Your task to perform on an android device: change keyboard looks Image 0: 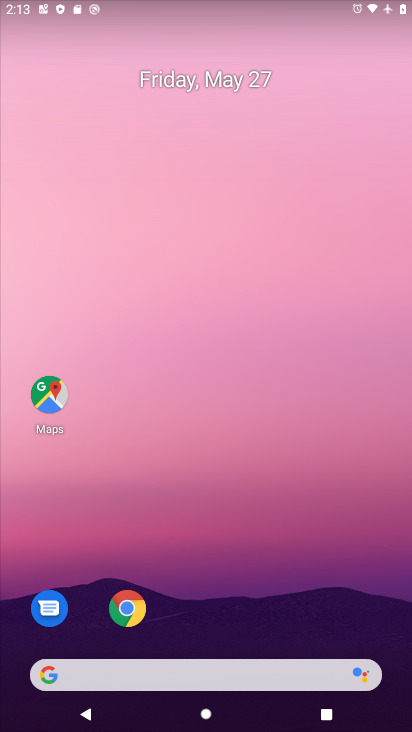
Step 0: press home button
Your task to perform on an android device: change keyboard looks Image 1: 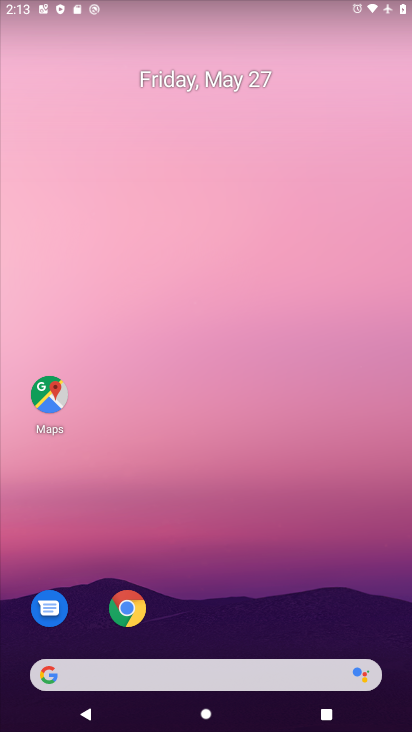
Step 1: drag from (161, 671) to (315, 103)
Your task to perform on an android device: change keyboard looks Image 2: 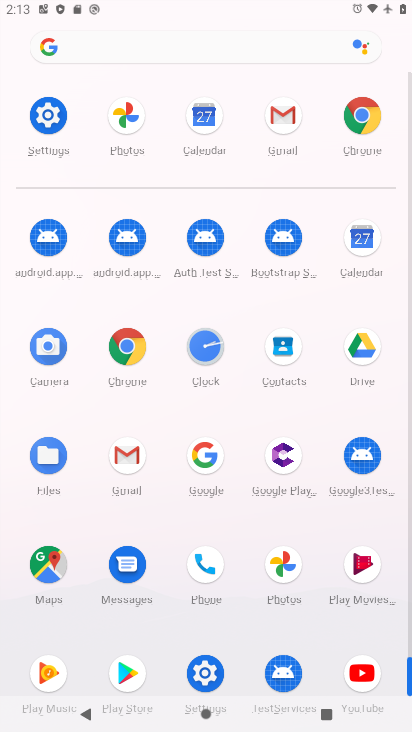
Step 2: click (44, 120)
Your task to perform on an android device: change keyboard looks Image 3: 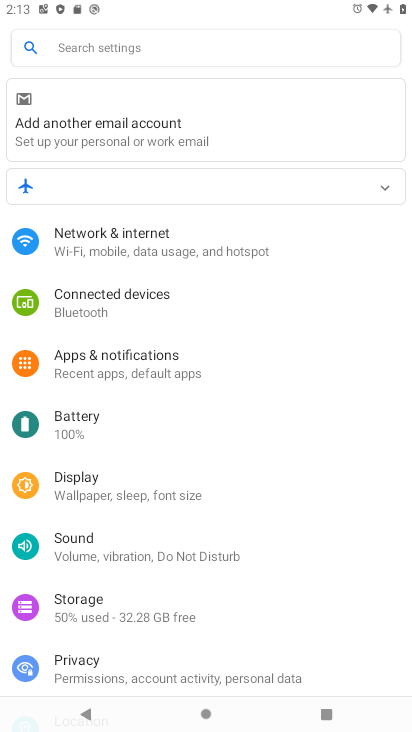
Step 3: drag from (307, 629) to (411, 70)
Your task to perform on an android device: change keyboard looks Image 4: 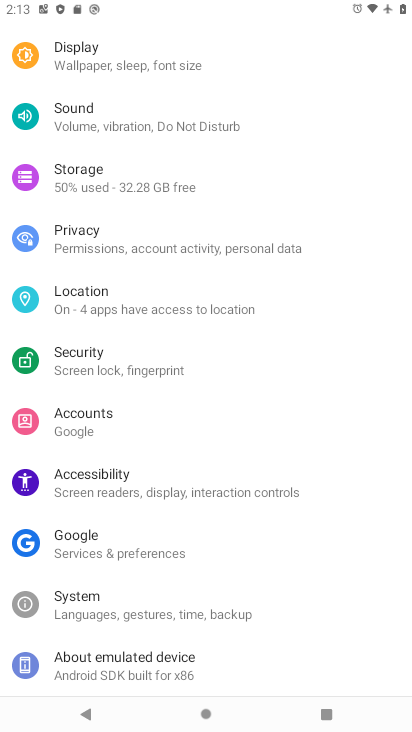
Step 4: click (131, 605)
Your task to perform on an android device: change keyboard looks Image 5: 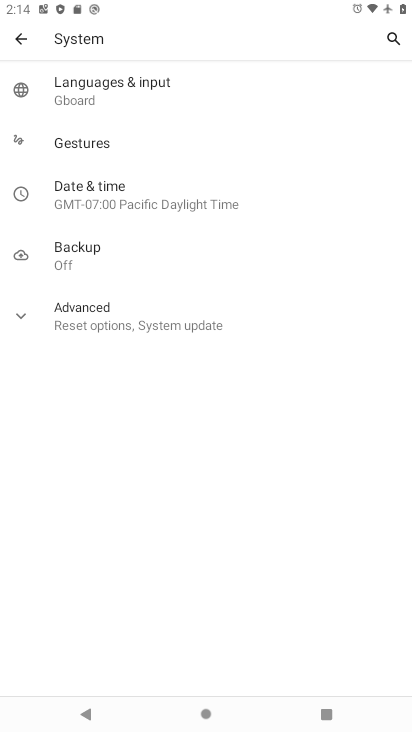
Step 5: click (105, 88)
Your task to perform on an android device: change keyboard looks Image 6: 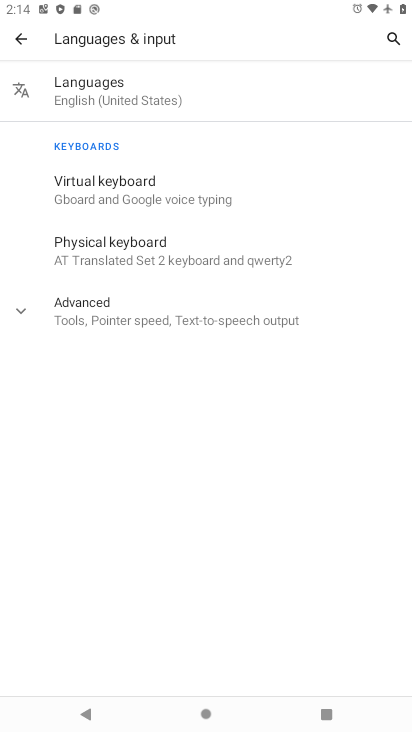
Step 6: click (159, 193)
Your task to perform on an android device: change keyboard looks Image 7: 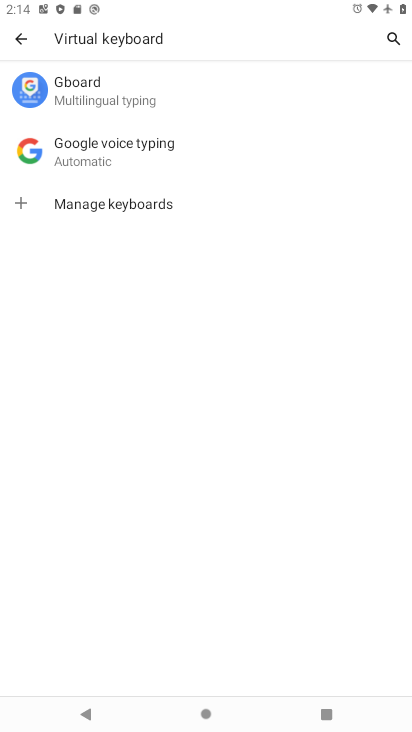
Step 7: click (96, 90)
Your task to perform on an android device: change keyboard looks Image 8: 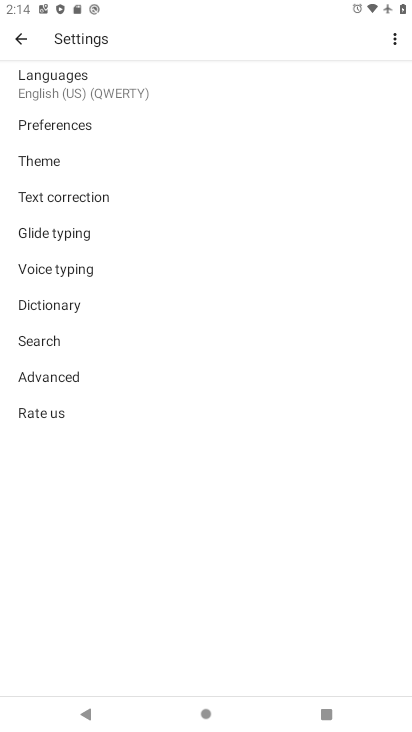
Step 8: click (58, 174)
Your task to perform on an android device: change keyboard looks Image 9: 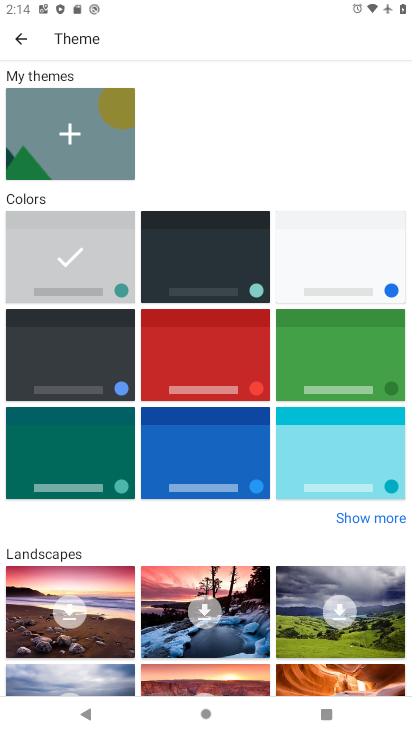
Step 9: click (78, 449)
Your task to perform on an android device: change keyboard looks Image 10: 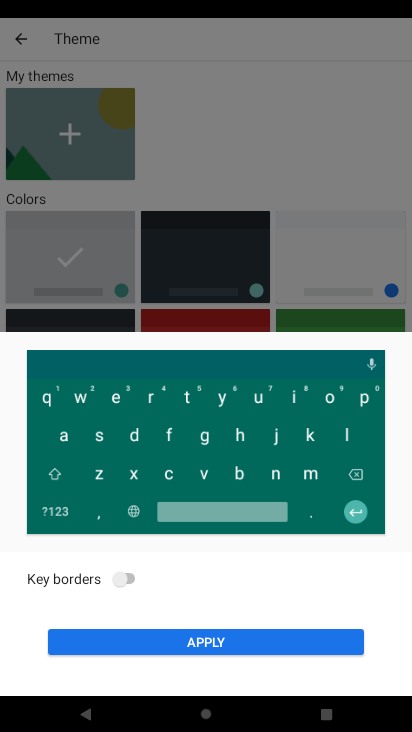
Step 10: click (218, 644)
Your task to perform on an android device: change keyboard looks Image 11: 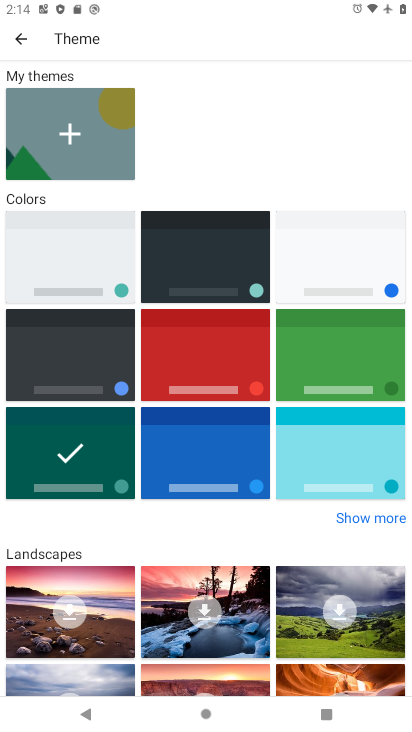
Step 11: task complete